Your task to perform on an android device: Open Google Chrome and click the shortcut for Amazon.com Image 0: 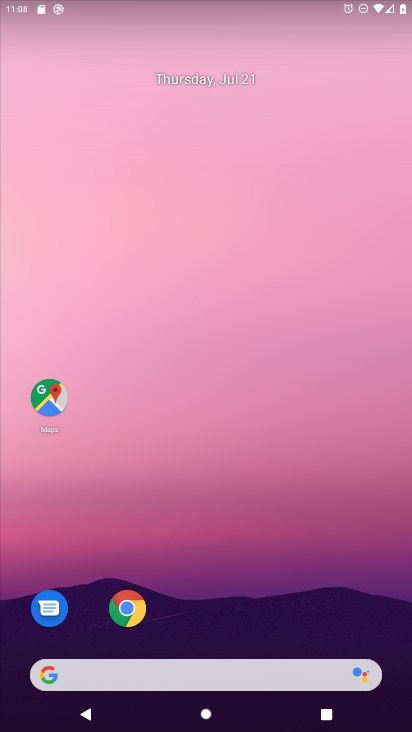
Step 0: drag from (393, 629) to (241, 111)
Your task to perform on an android device: Open Google Chrome and click the shortcut for Amazon.com Image 1: 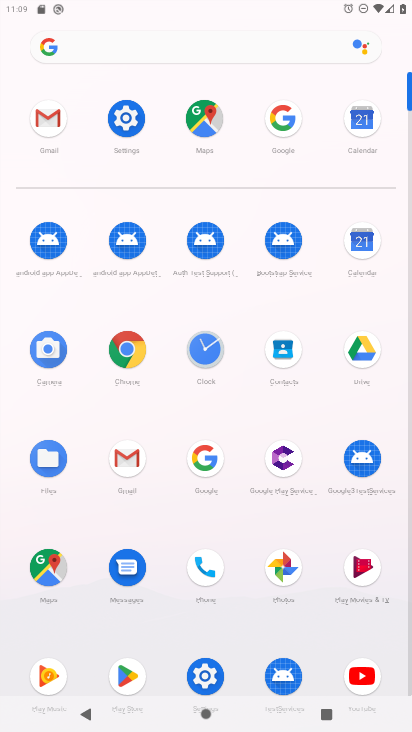
Step 1: click (126, 348)
Your task to perform on an android device: Open Google Chrome and click the shortcut for Amazon.com Image 2: 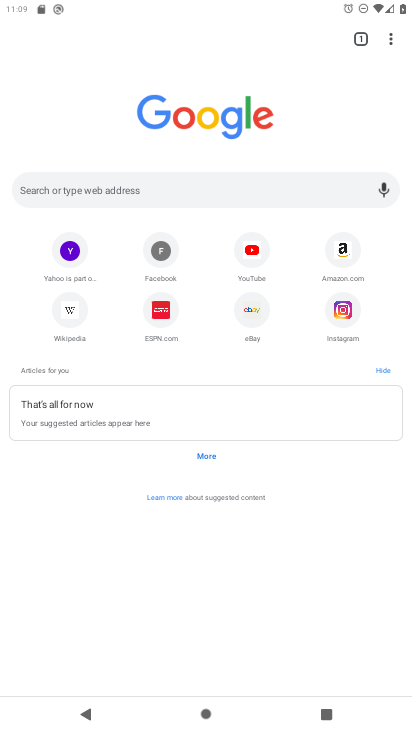
Step 2: click (323, 262)
Your task to perform on an android device: Open Google Chrome and click the shortcut for Amazon.com Image 3: 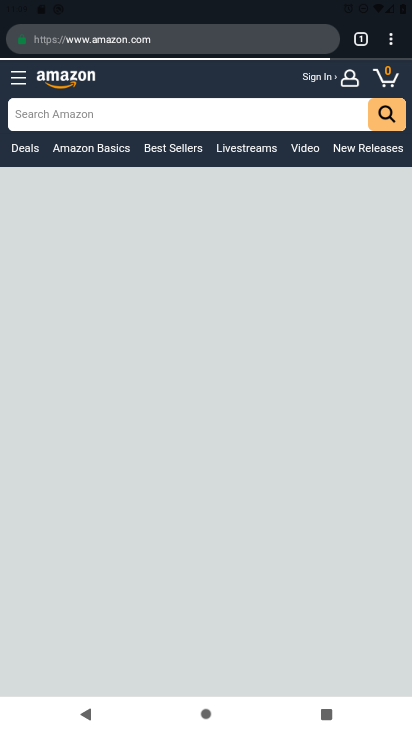
Step 3: task complete